Your task to perform on an android device: move a message to another label in the gmail app Image 0: 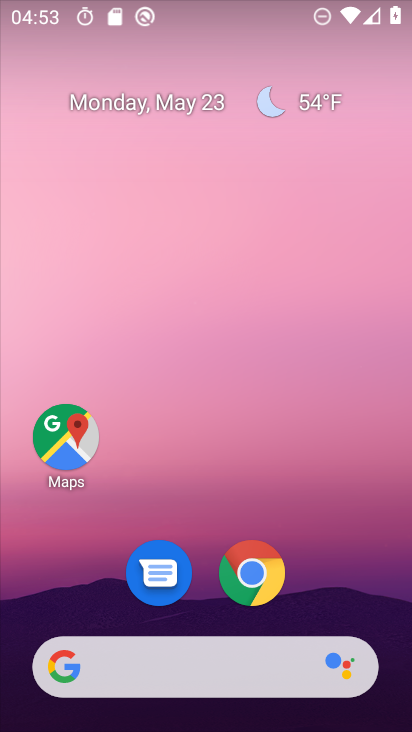
Step 0: drag from (338, 521) to (316, 55)
Your task to perform on an android device: move a message to another label in the gmail app Image 1: 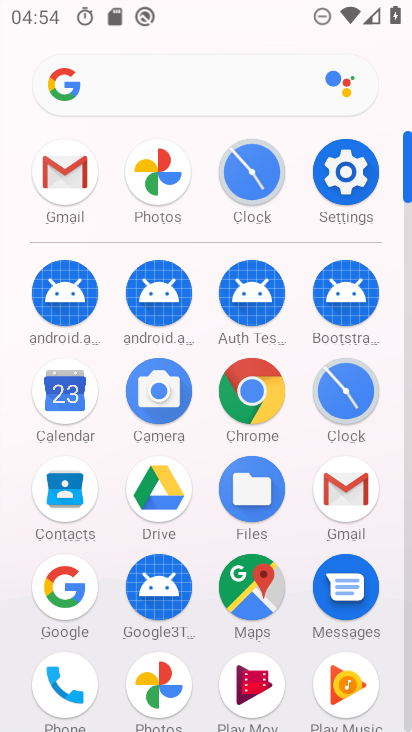
Step 1: click (342, 501)
Your task to perform on an android device: move a message to another label in the gmail app Image 2: 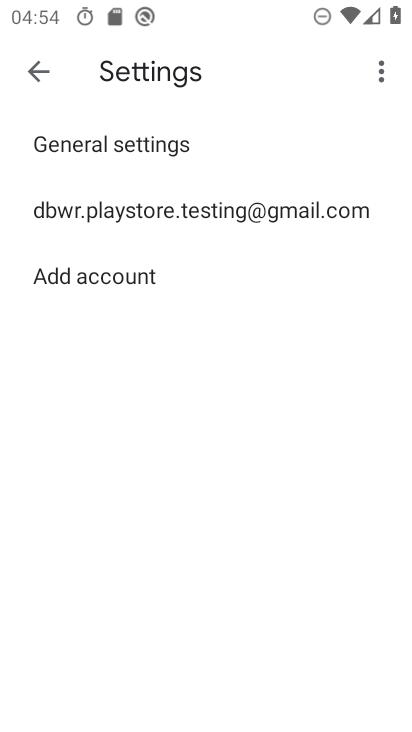
Step 2: click (40, 63)
Your task to perform on an android device: move a message to another label in the gmail app Image 3: 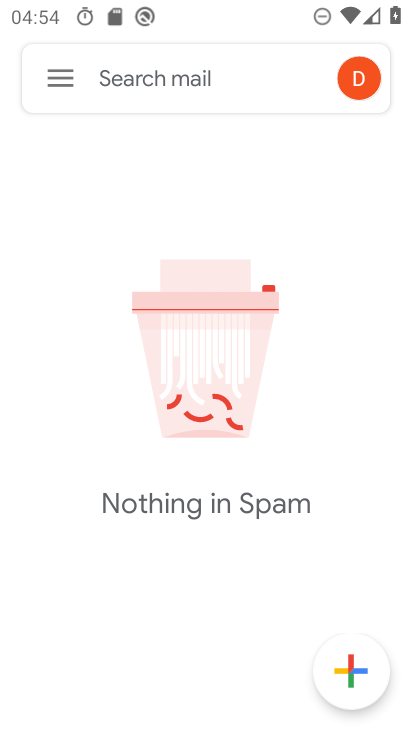
Step 3: click (60, 78)
Your task to perform on an android device: move a message to another label in the gmail app Image 4: 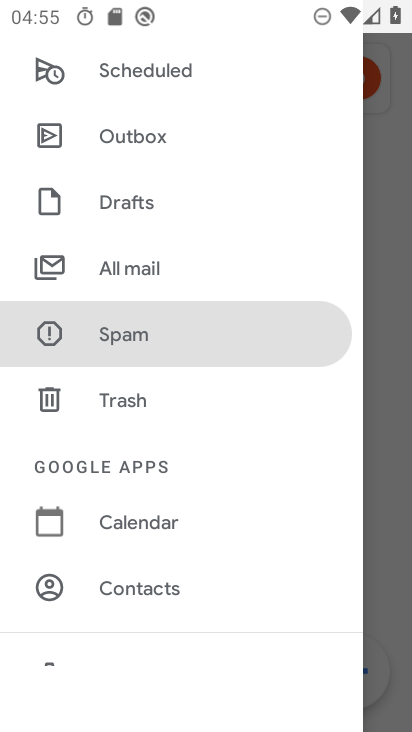
Step 4: drag from (208, 171) to (224, 416)
Your task to perform on an android device: move a message to another label in the gmail app Image 5: 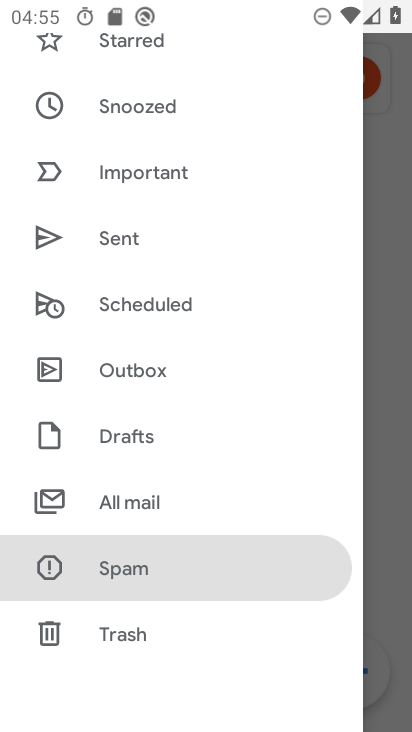
Step 5: drag from (206, 86) to (250, 406)
Your task to perform on an android device: move a message to another label in the gmail app Image 6: 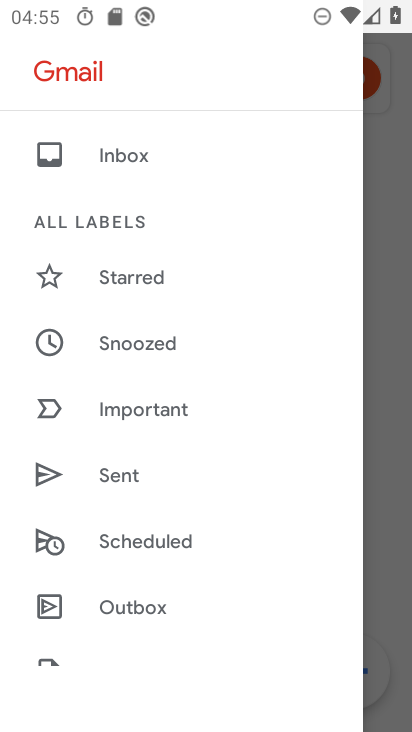
Step 6: drag from (191, 547) to (183, 172)
Your task to perform on an android device: move a message to another label in the gmail app Image 7: 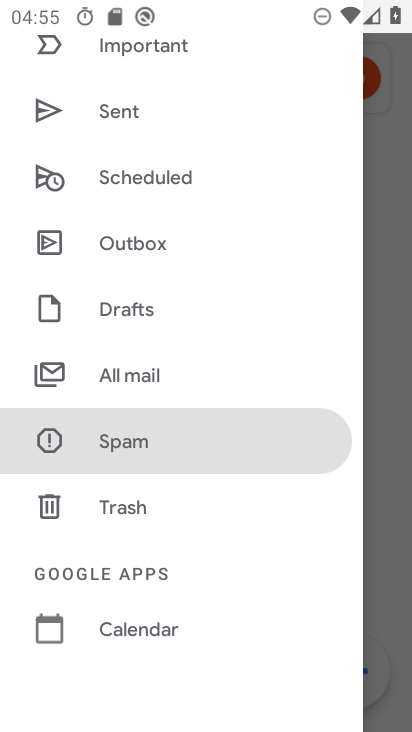
Step 7: drag from (187, 109) to (200, 414)
Your task to perform on an android device: move a message to another label in the gmail app Image 8: 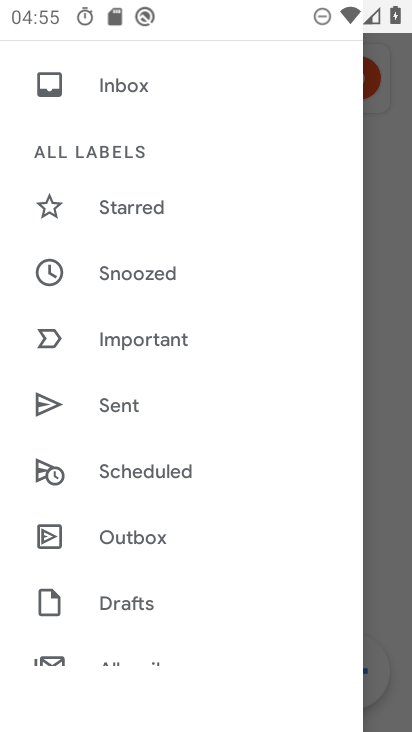
Step 8: drag from (166, 618) to (180, 252)
Your task to perform on an android device: move a message to another label in the gmail app Image 9: 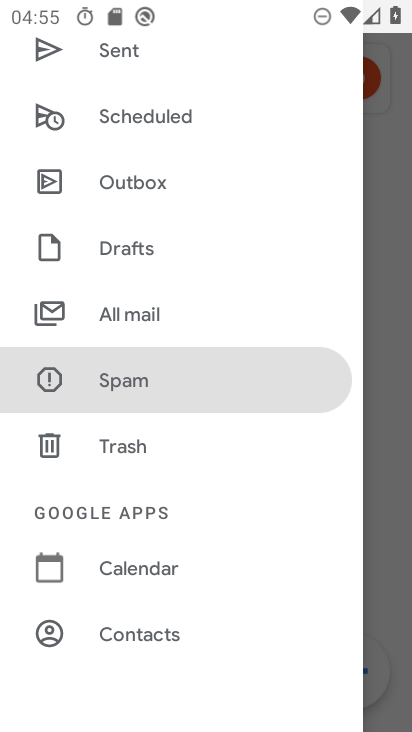
Step 9: click (177, 307)
Your task to perform on an android device: move a message to another label in the gmail app Image 10: 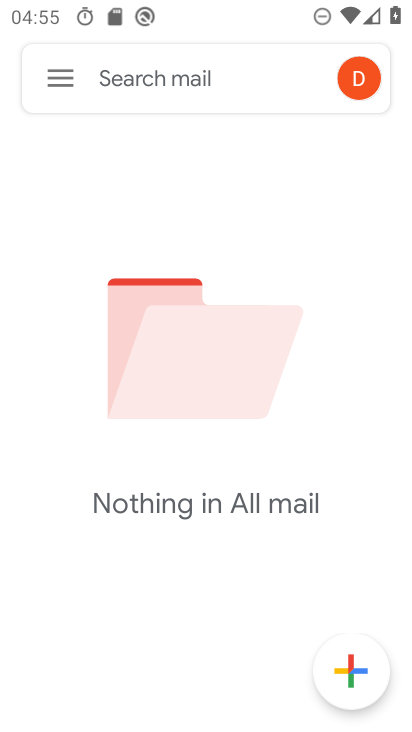
Step 10: task complete